Your task to perform on an android device: turn on bluetooth scan Image 0: 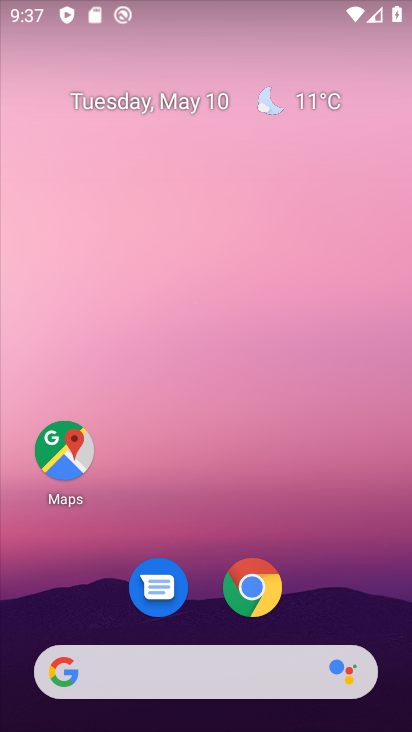
Step 0: drag from (218, 635) to (255, 127)
Your task to perform on an android device: turn on bluetooth scan Image 1: 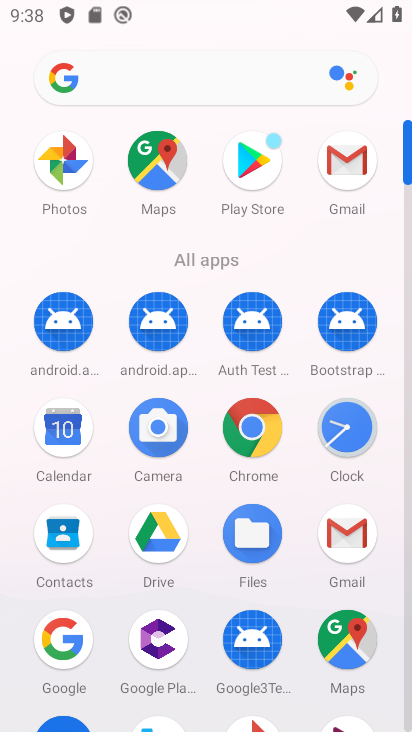
Step 1: drag from (199, 506) to (232, 106)
Your task to perform on an android device: turn on bluetooth scan Image 2: 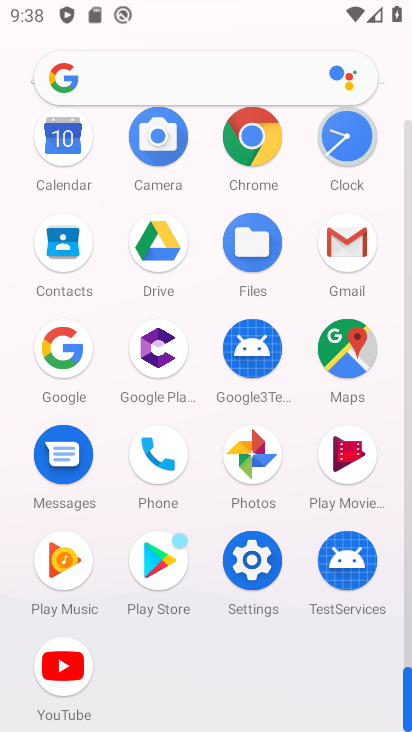
Step 2: click (254, 587)
Your task to perform on an android device: turn on bluetooth scan Image 3: 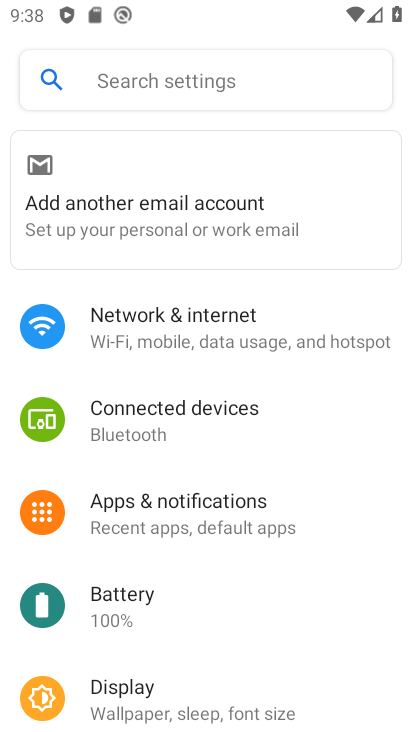
Step 3: drag from (197, 585) to (273, 293)
Your task to perform on an android device: turn on bluetooth scan Image 4: 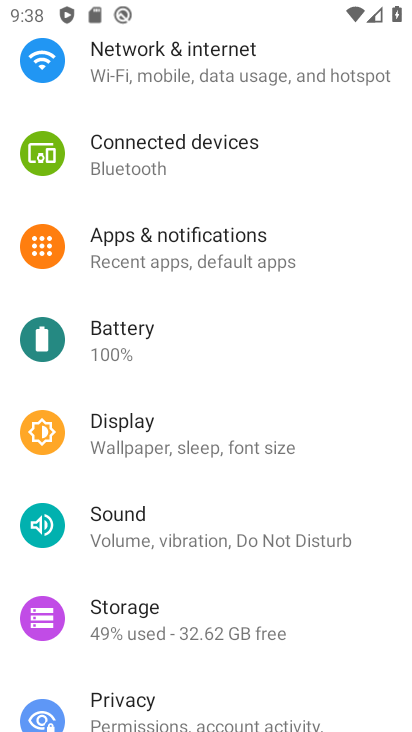
Step 4: drag from (167, 619) to (183, 532)
Your task to perform on an android device: turn on bluetooth scan Image 5: 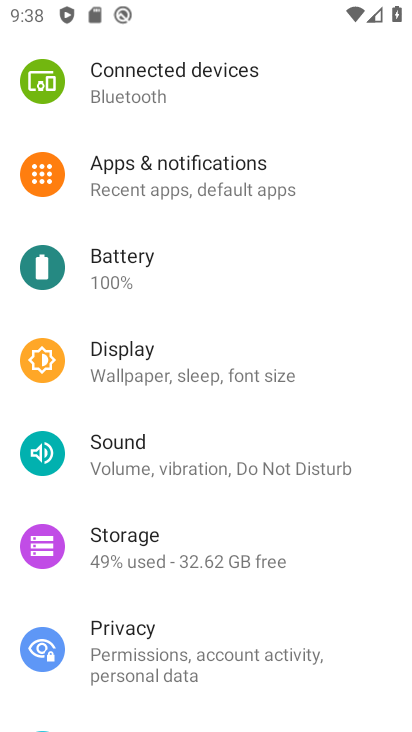
Step 5: drag from (145, 609) to (212, 237)
Your task to perform on an android device: turn on bluetooth scan Image 6: 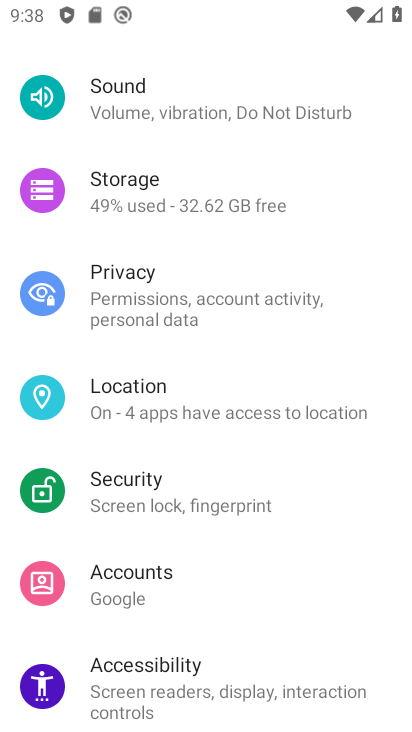
Step 6: click (165, 399)
Your task to perform on an android device: turn on bluetooth scan Image 7: 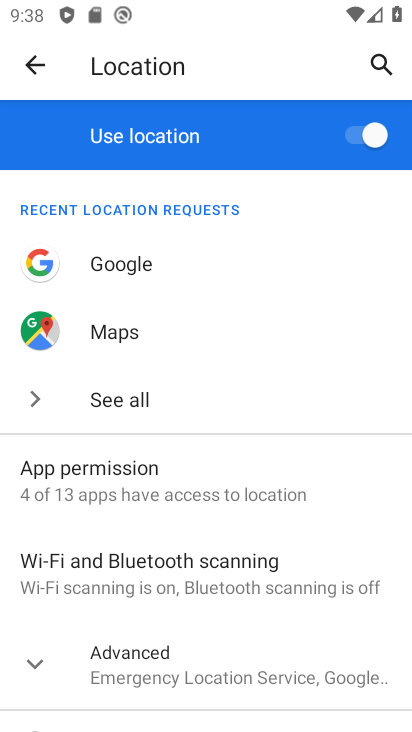
Step 7: click (115, 576)
Your task to perform on an android device: turn on bluetooth scan Image 8: 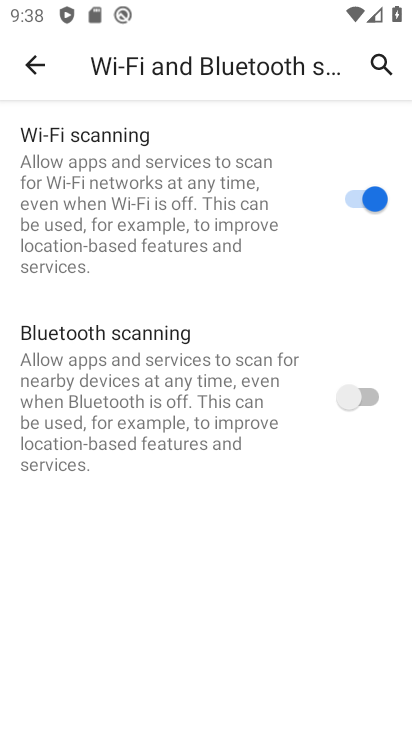
Step 8: click (361, 402)
Your task to perform on an android device: turn on bluetooth scan Image 9: 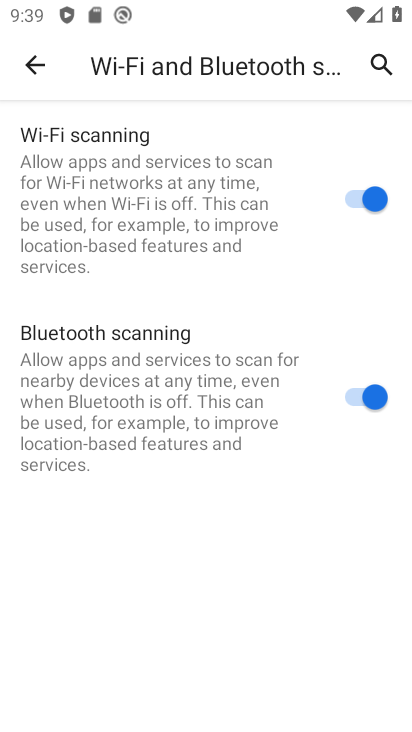
Step 9: task complete